Your task to perform on an android device: Search for vegetarian restaurants on Maps Image 0: 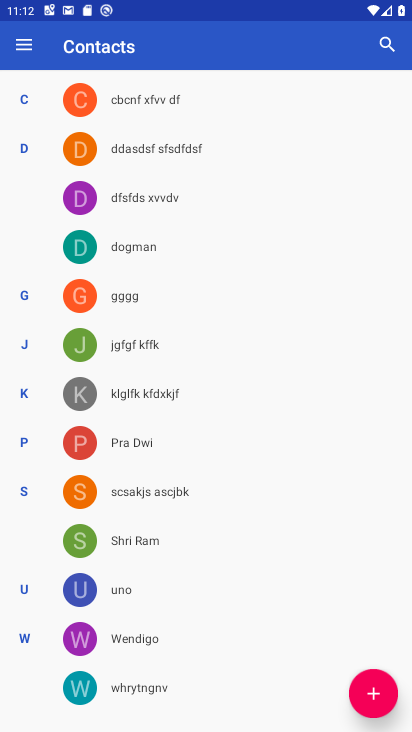
Step 0: press home button
Your task to perform on an android device: Search for vegetarian restaurants on Maps Image 1: 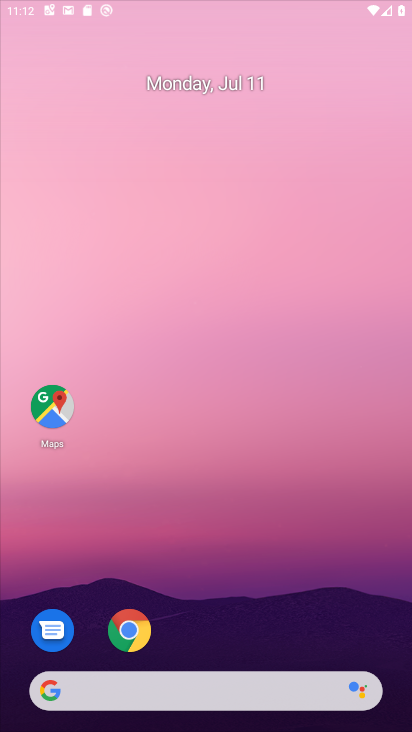
Step 1: drag from (204, 608) to (232, 315)
Your task to perform on an android device: Search for vegetarian restaurants on Maps Image 2: 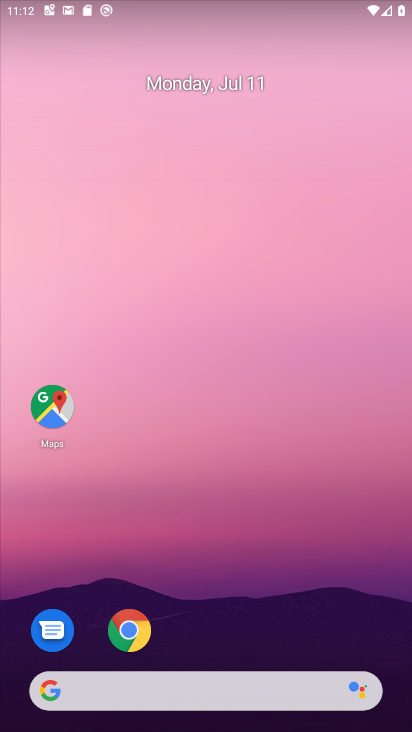
Step 2: drag from (192, 615) to (187, 176)
Your task to perform on an android device: Search for vegetarian restaurants on Maps Image 3: 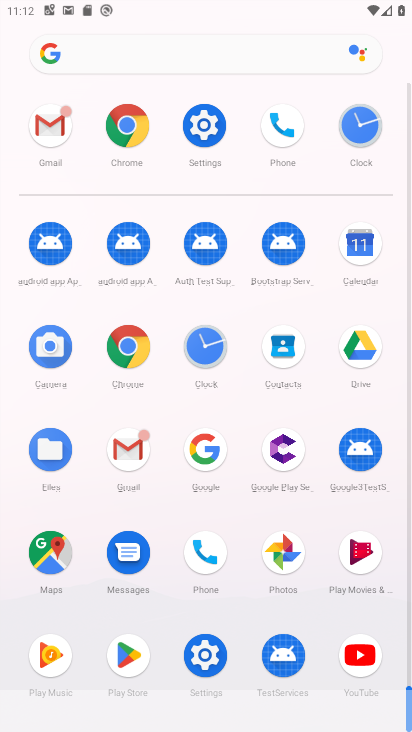
Step 3: click (56, 558)
Your task to perform on an android device: Search for vegetarian restaurants on Maps Image 4: 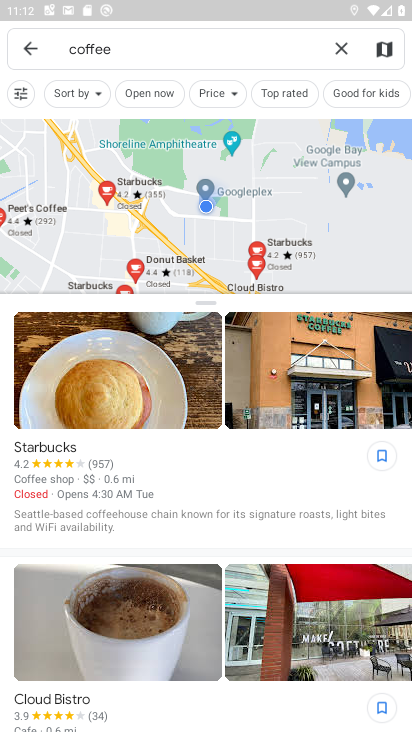
Step 4: click (343, 58)
Your task to perform on an android device: Search for vegetarian restaurants on Maps Image 5: 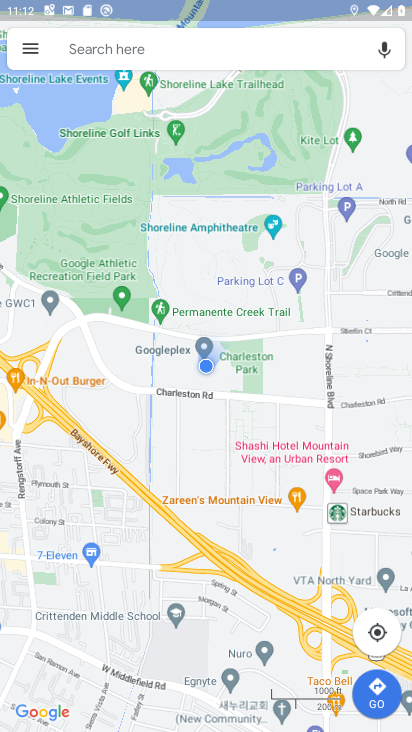
Step 5: click (178, 69)
Your task to perform on an android device: Search for vegetarian restaurants on Maps Image 6: 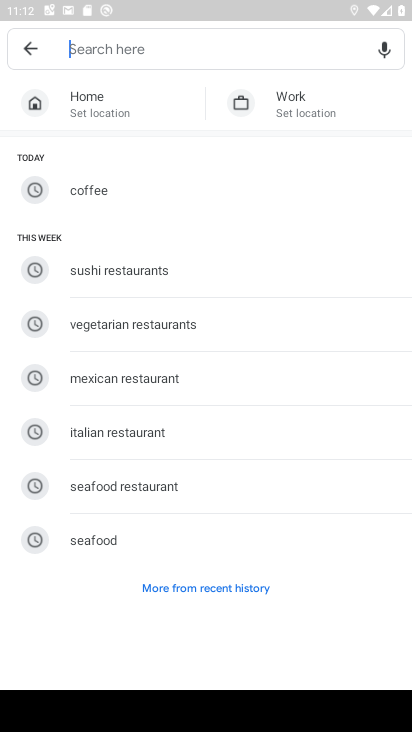
Step 6: click (144, 321)
Your task to perform on an android device: Search for vegetarian restaurants on Maps Image 7: 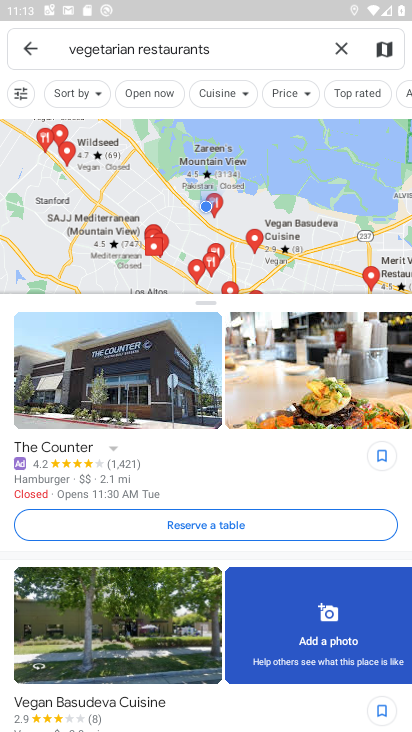
Step 7: task complete